Your task to perform on an android device: turn off smart reply in the gmail app Image 0: 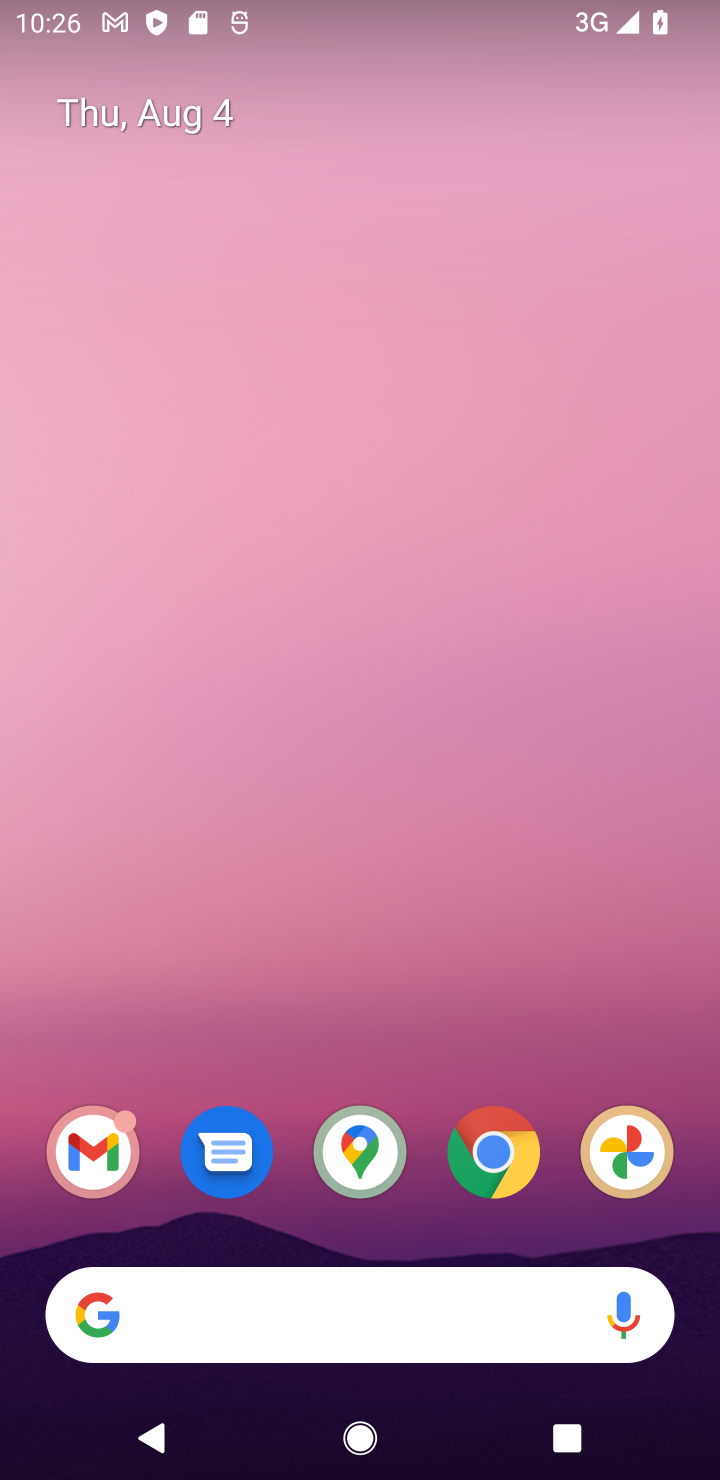
Step 0: drag from (396, 1068) to (431, 60)
Your task to perform on an android device: turn off smart reply in the gmail app Image 1: 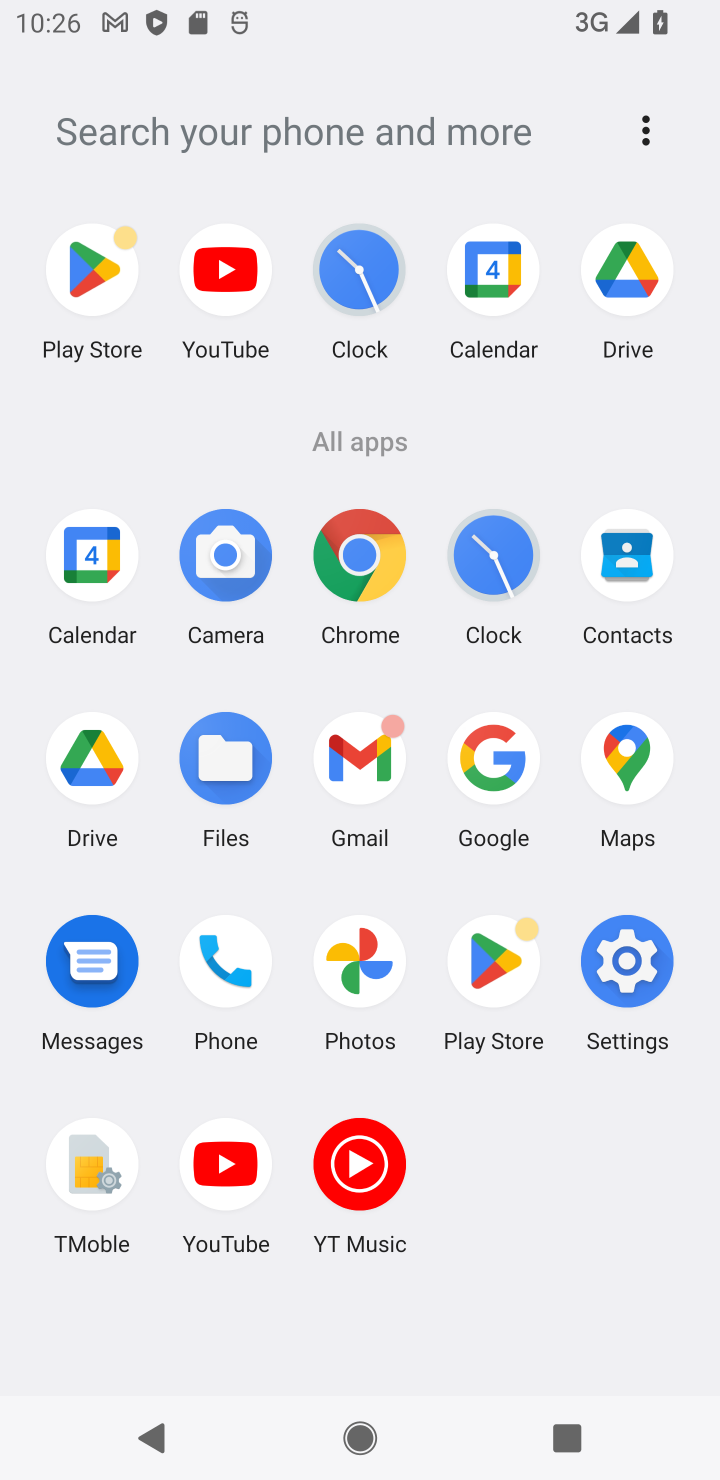
Step 1: click (367, 823)
Your task to perform on an android device: turn off smart reply in the gmail app Image 2: 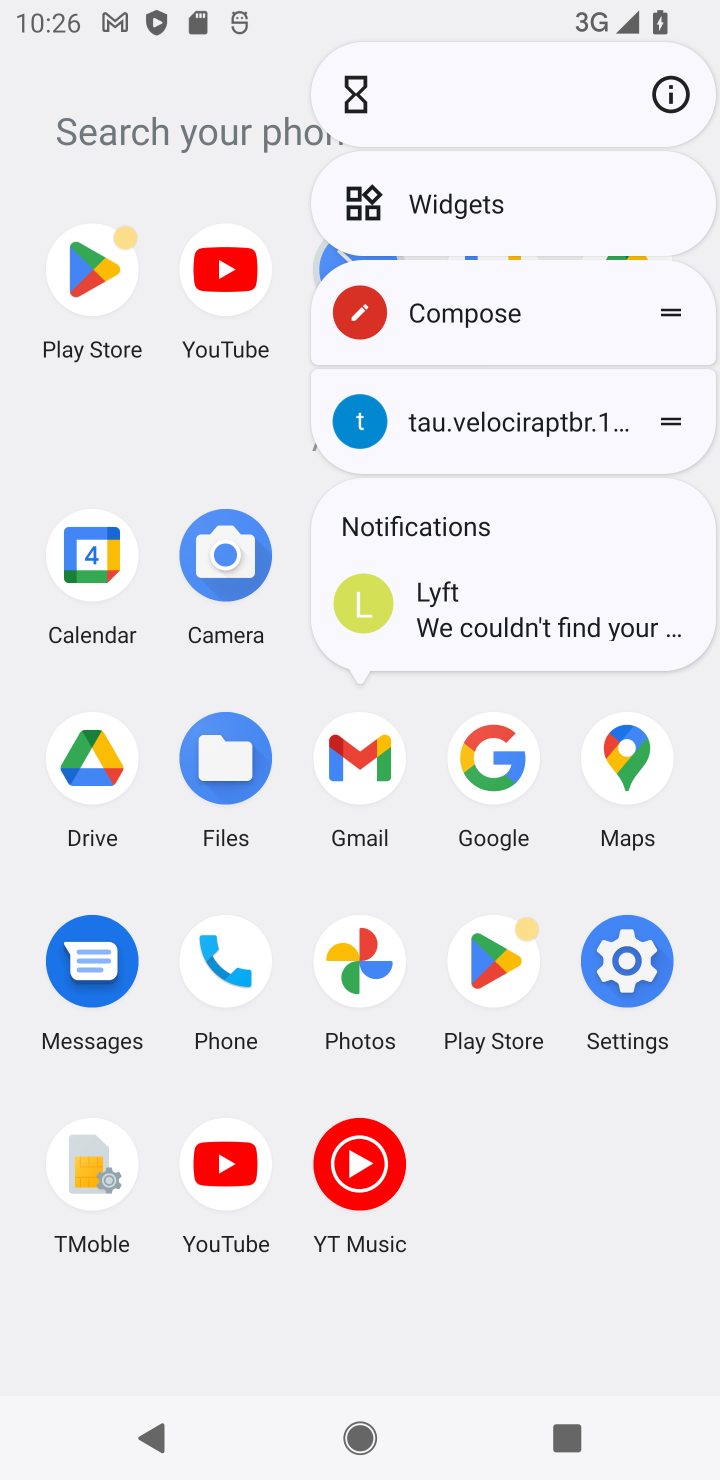
Step 2: click (328, 828)
Your task to perform on an android device: turn off smart reply in the gmail app Image 3: 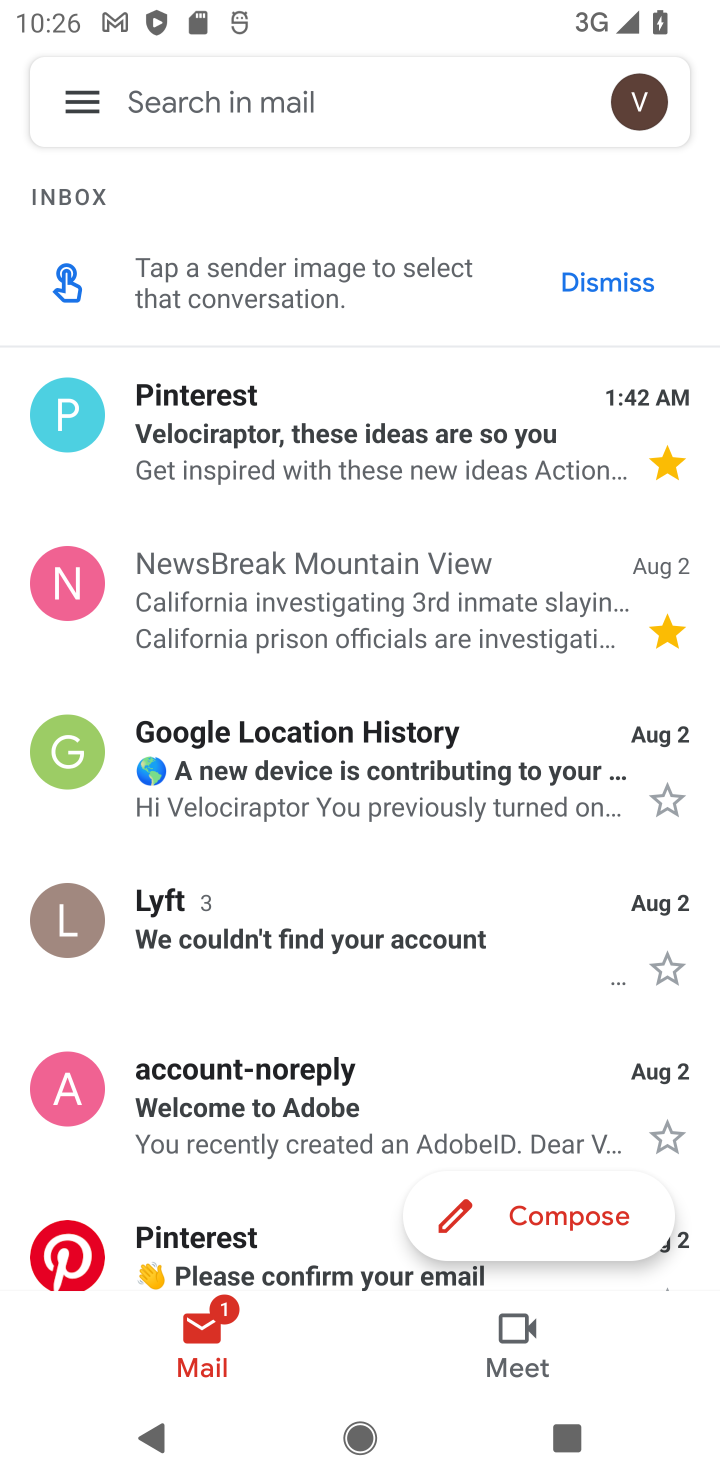
Step 3: click (56, 105)
Your task to perform on an android device: turn off smart reply in the gmail app Image 4: 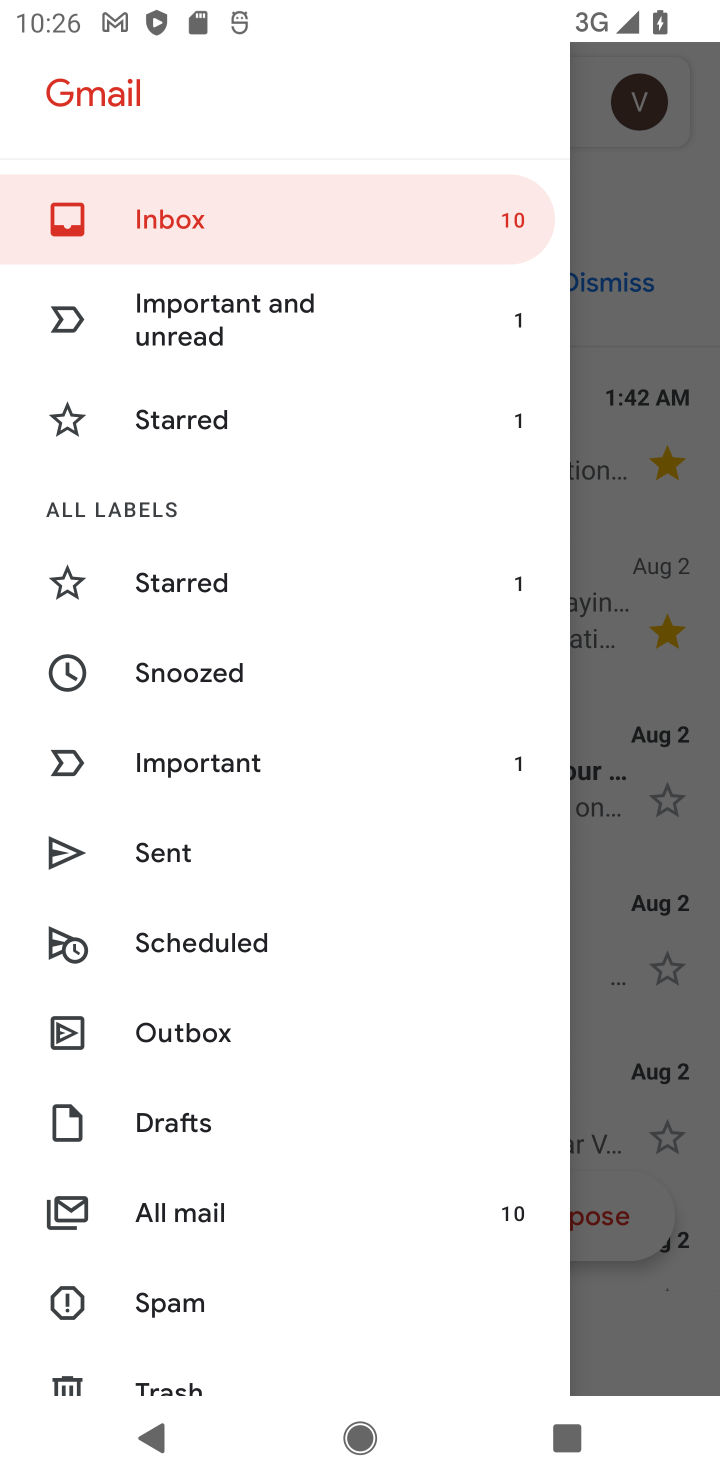
Step 4: drag from (196, 1059) to (253, 362)
Your task to perform on an android device: turn off smart reply in the gmail app Image 5: 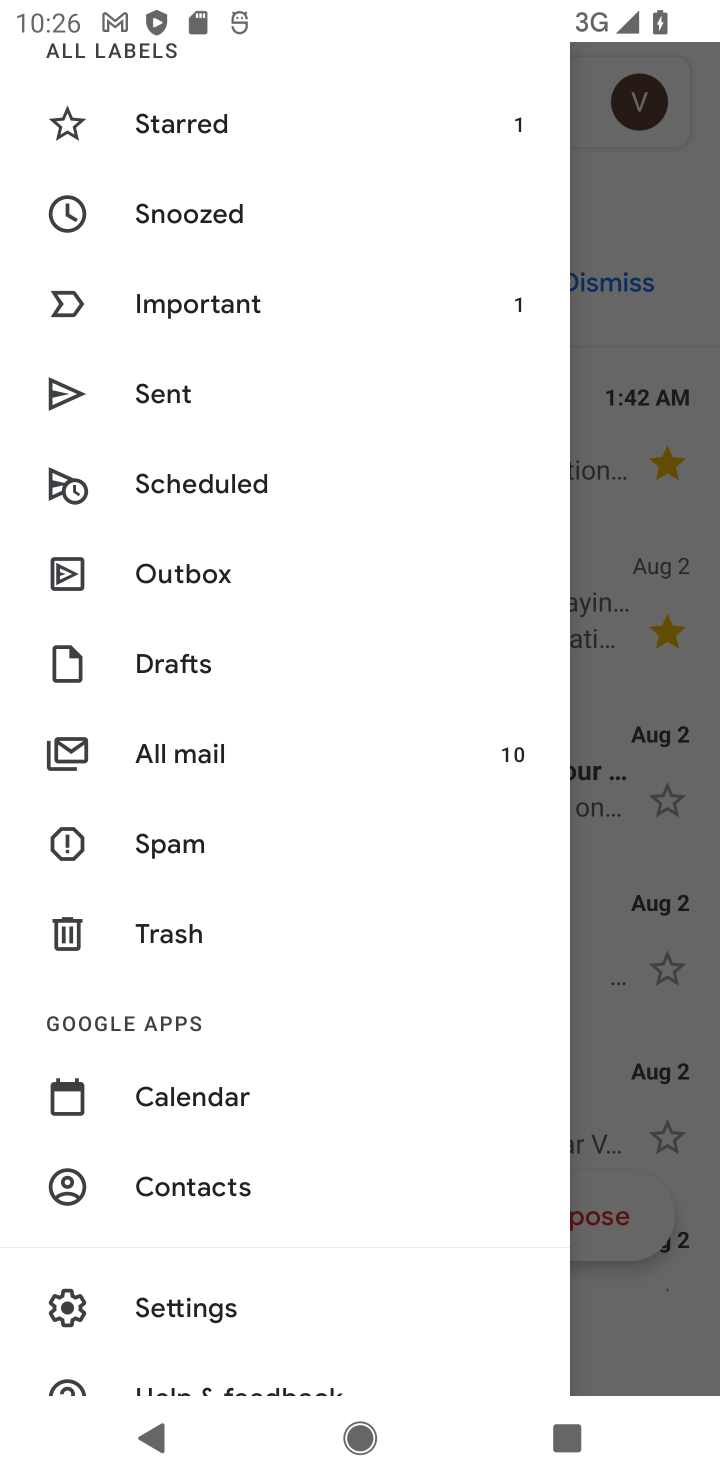
Step 5: click (187, 1299)
Your task to perform on an android device: turn off smart reply in the gmail app Image 6: 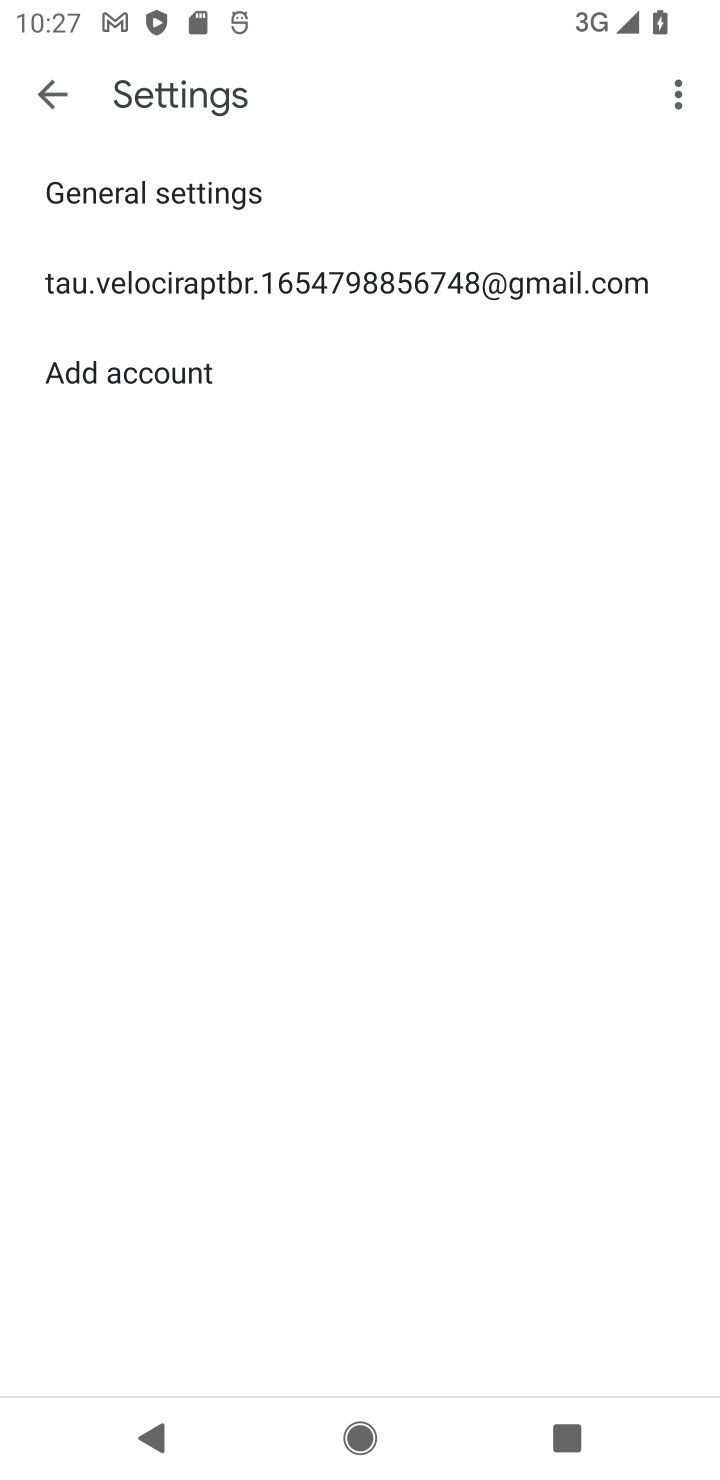
Step 6: click (320, 278)
Your task to perform on an android device: turn off smart reply in the gmail app Image 7: 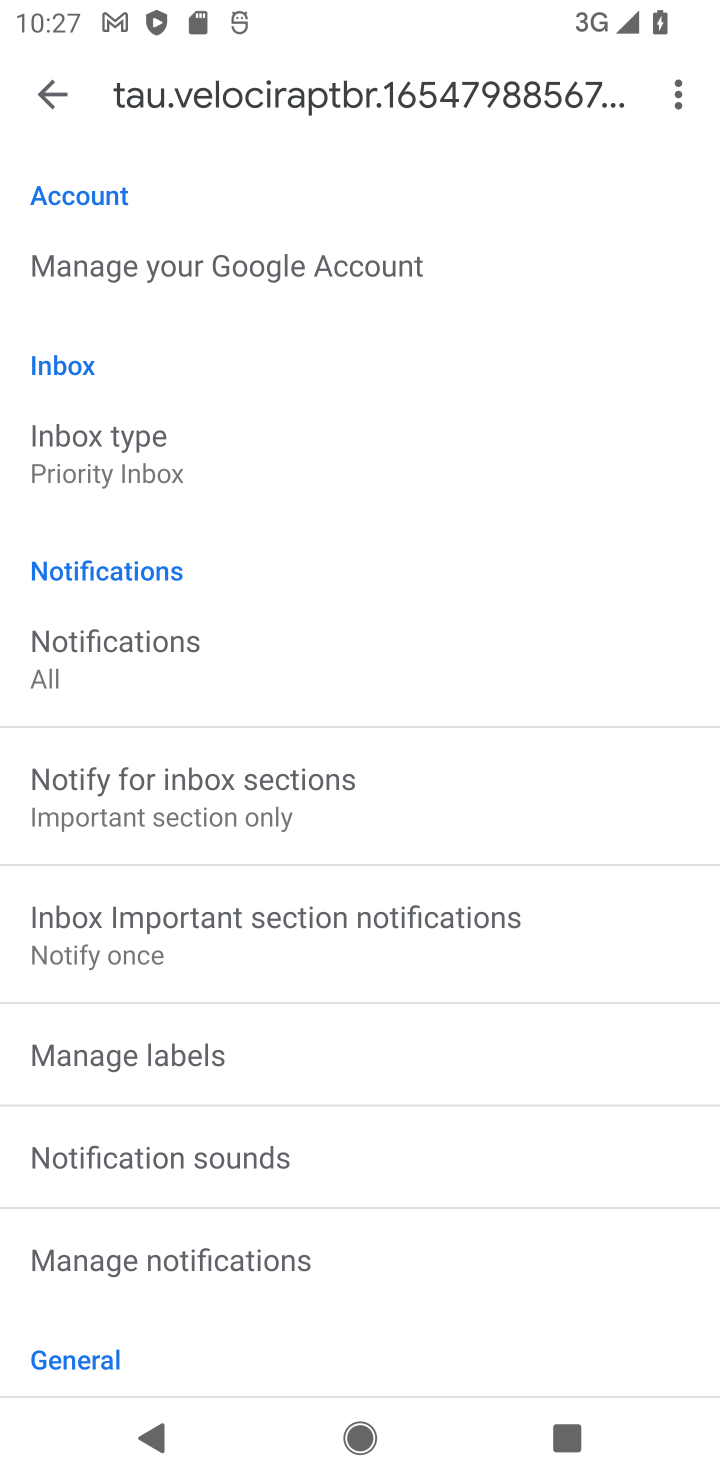
Step 7: drag from (216, 1054) to (290, 621)
Your task to perform on an android device: turn off smart reply in the gmail app Image 8: 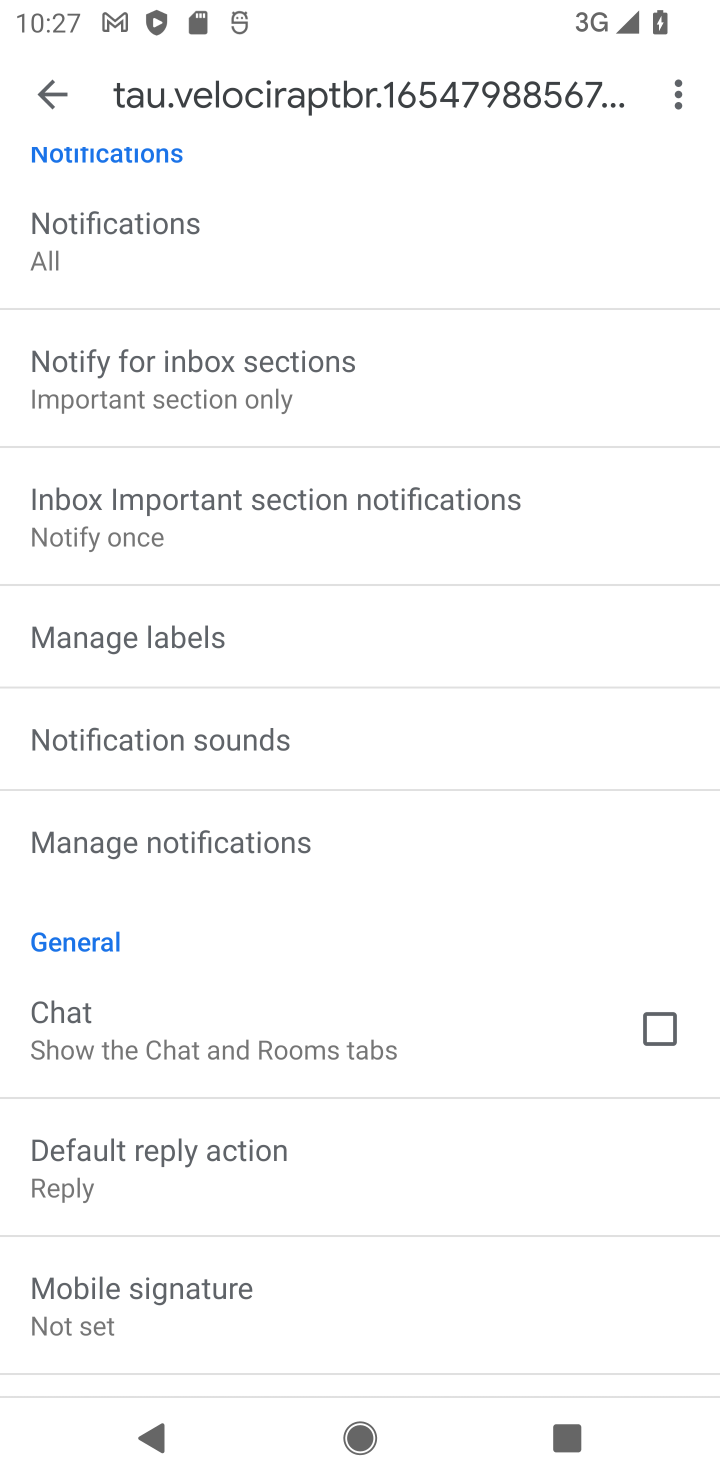
Step 8: drag from (285, 1030) to (364, 689)
Your task to perform on an android device: turn off smart reply in the gmail app Image 9: 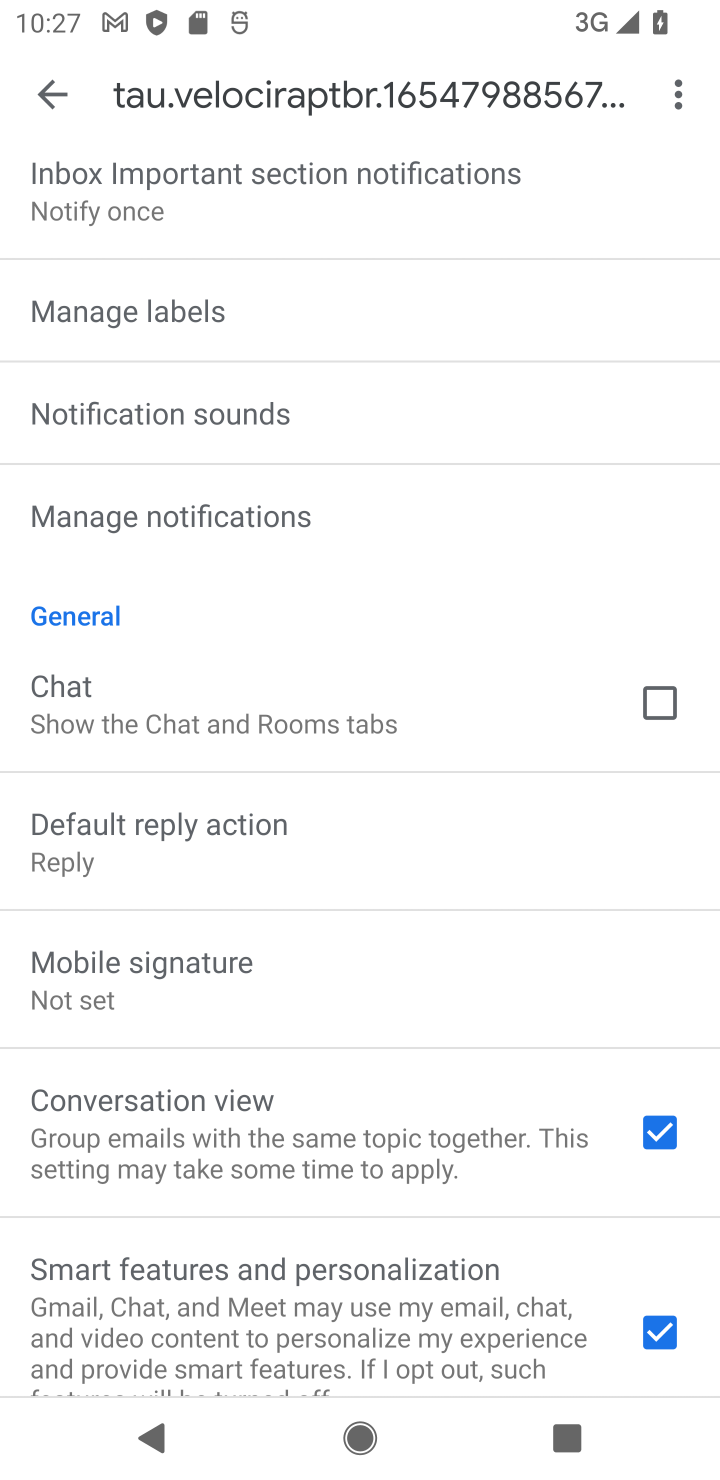
Step 9: drag from (334, 1193) to (438, 785)
Your task to perform on an android device: turn off smart reply in the gmail app Image 10: 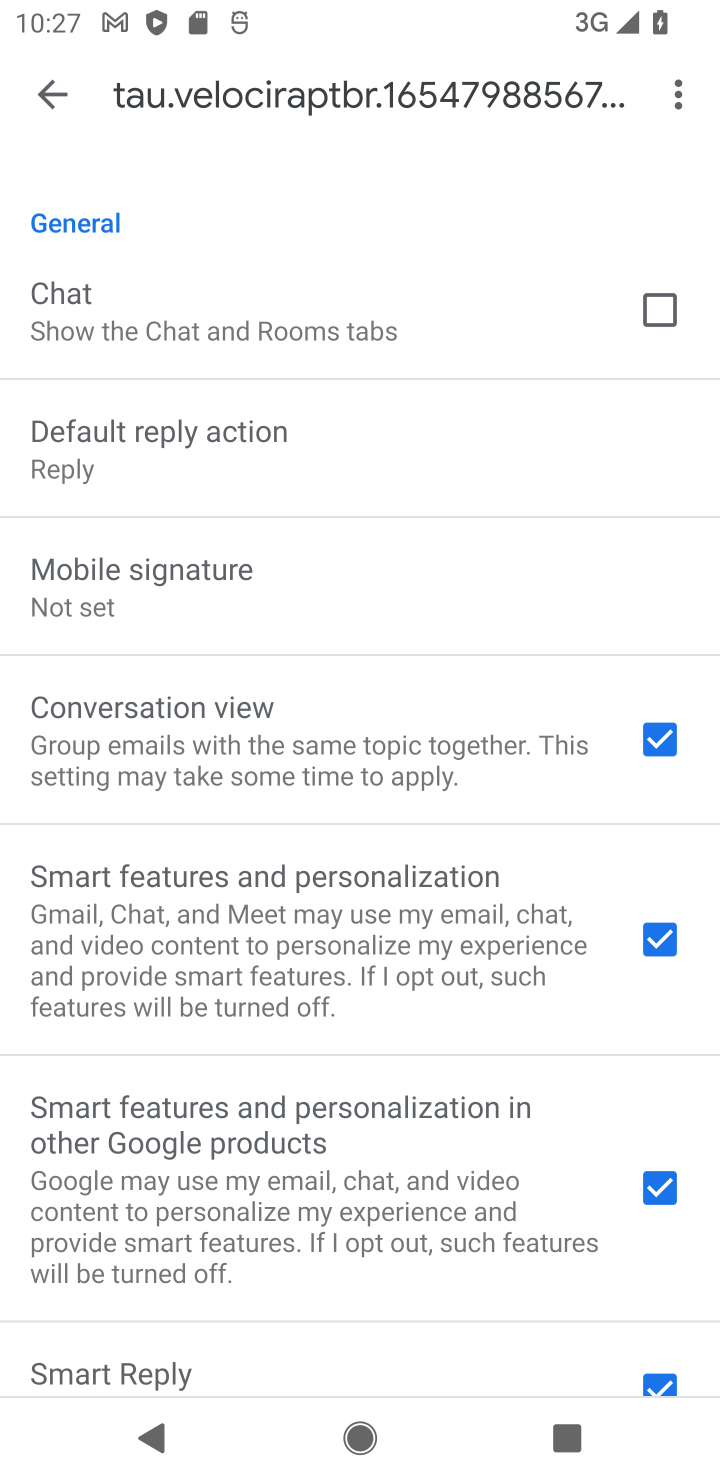
Step 10: drag from (368, 1111) to (452, 618)
Your task to perform on an android device: turn off smart reply in the gmail app Image 11: 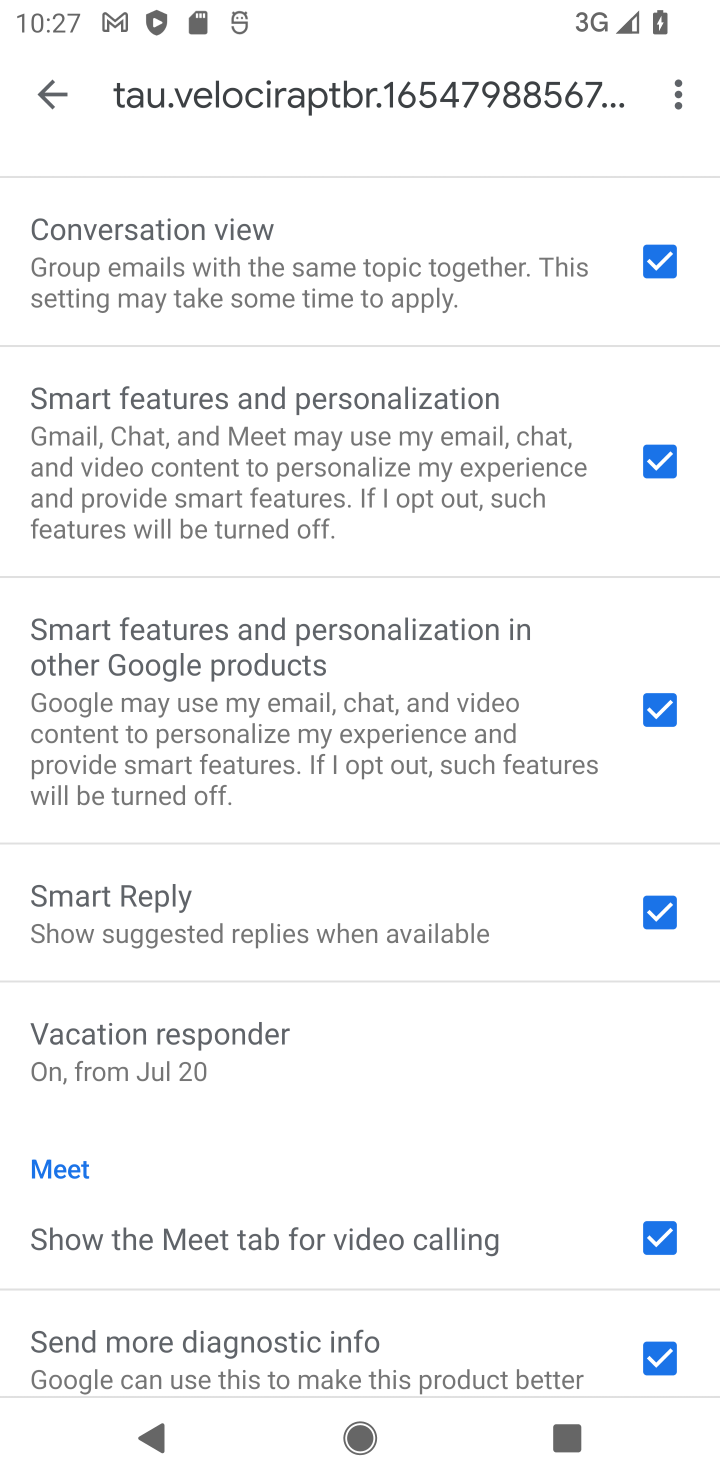
Step 11: click (641, 911)
Your task to perform on an android device: turn off smart reply in the gmail app Image 12: 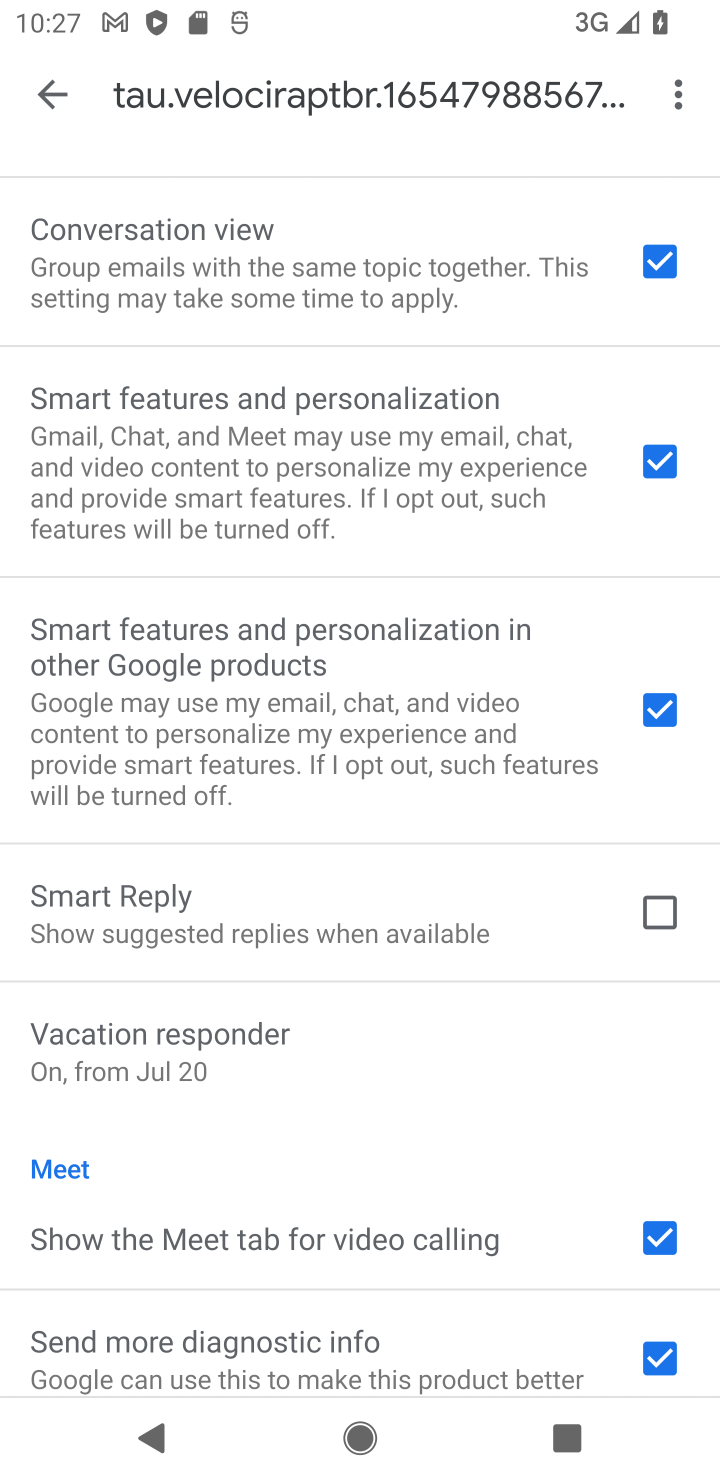
Step 12: task complete